Your task to perform on an android device: turn off data saver in the chrome app Image 0: 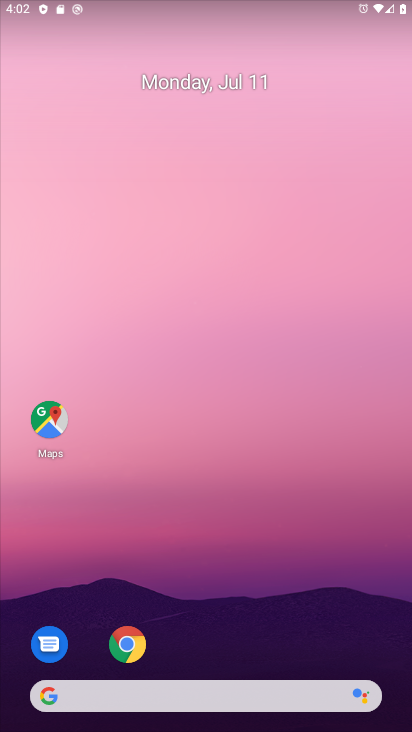
Step 0: press home button
Your task to perform on an android device: turn off data saver in the chrome app Image 1: 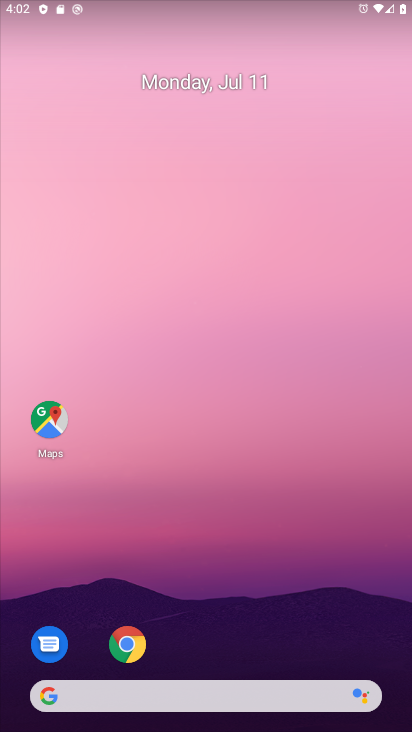
Step 1: drag from (290, 606) to (244, 120)
Your task to perform on an android device: turn off data saver in the chrome app Image 2: 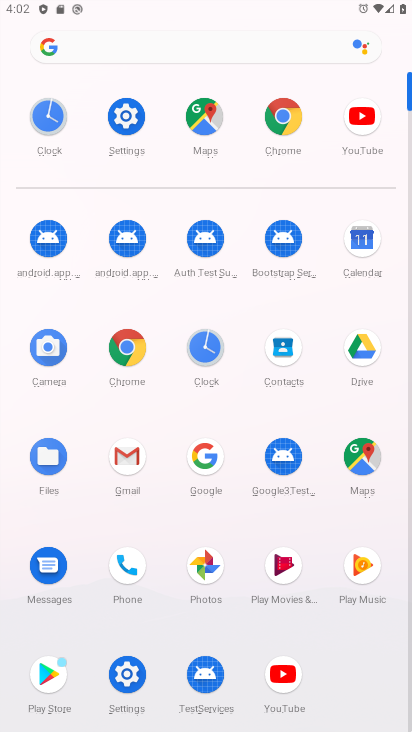
Step 2: click (284, 130)
Your task to perform on an android device: turn off data saver in the chrome app Image 3: 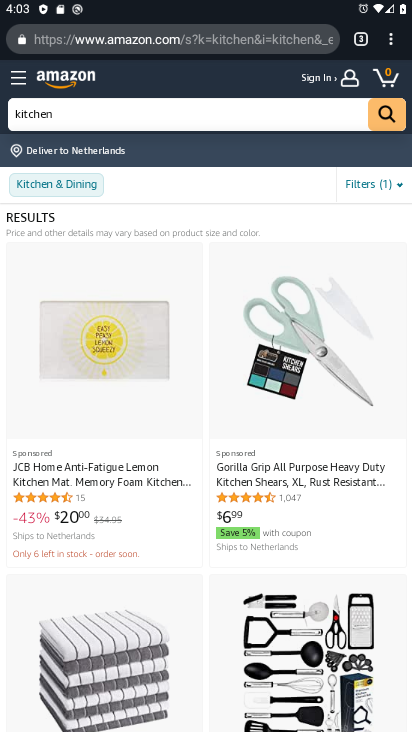
Step 3: click (392, 44)
Your task to perform on an android device: turn off data saver in the chrome app Image 4: 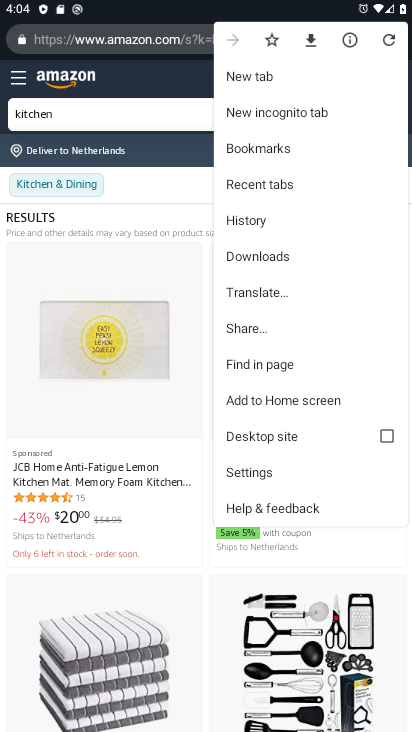
Step 4: click (266, 477)
Your task to perform on an android device: turn off data saver in the chrome app Image 5: 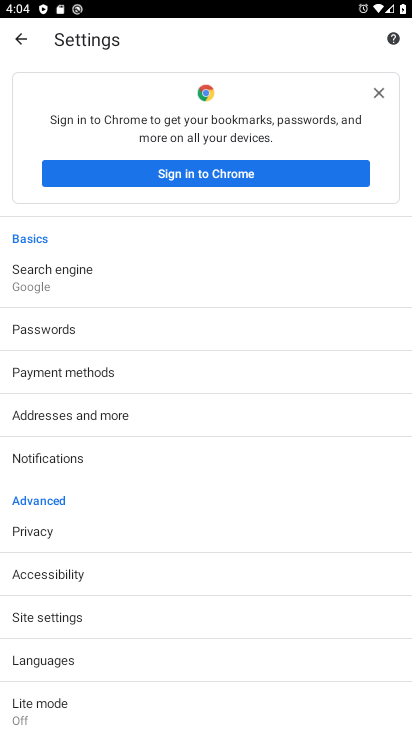
Step 5: click (178, 601)
Your task to perform on an android device: turn off data saver in the chrome app Image 6: 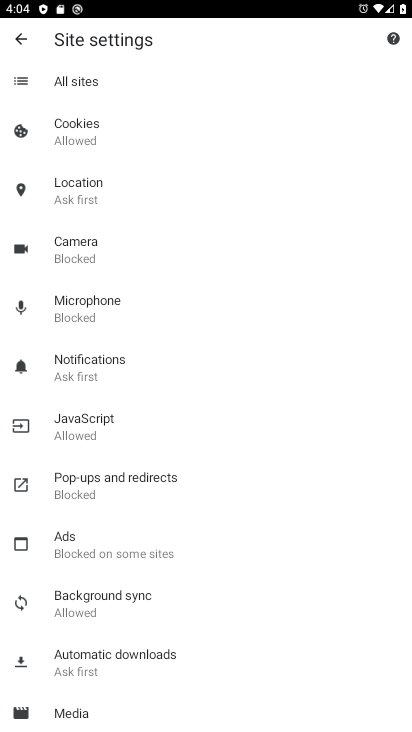
Step 6: drag from (274, 648) to (285, 300)
Your task to perform on an android device: turn off data saver in the chrome app Image 7: 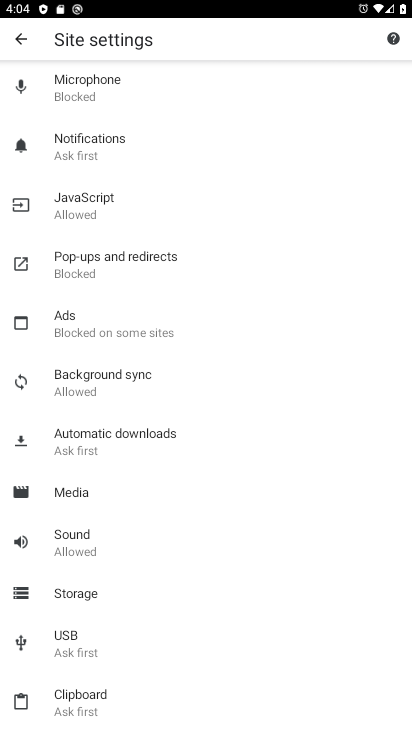
Step 7: drag from (266, 243) to (292, 471)
Your task to perform on an android device: turn off data saver in the chrome app Image 8: 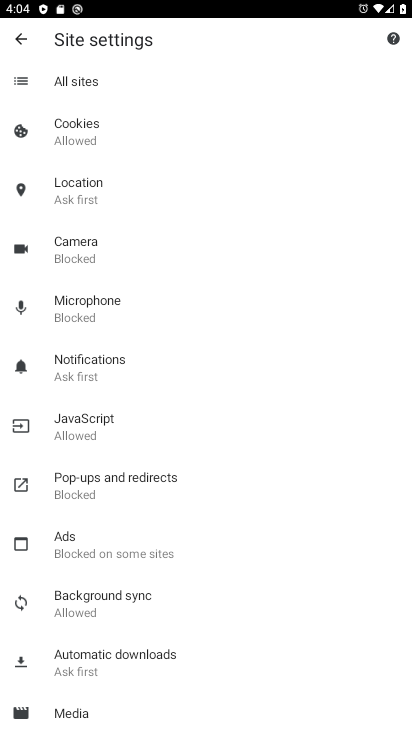
Step 8: click (24, 39)
Your task to perform on an android device: turn off data saver in the chrome app Image 9: 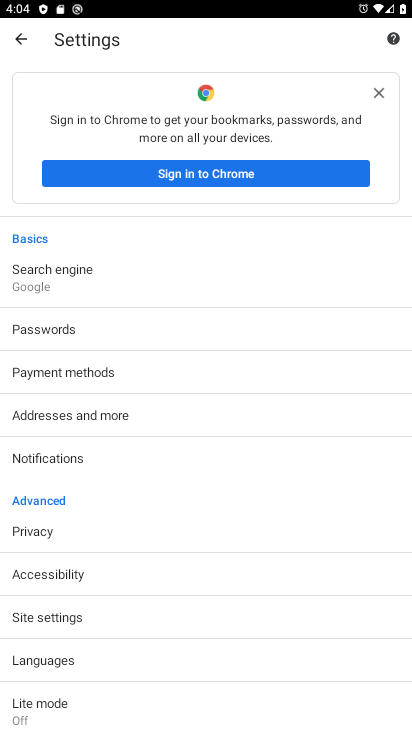
Step 9: task complete